Your task to perform on an android device: Show me productivity apps on the Play Store Image 0: 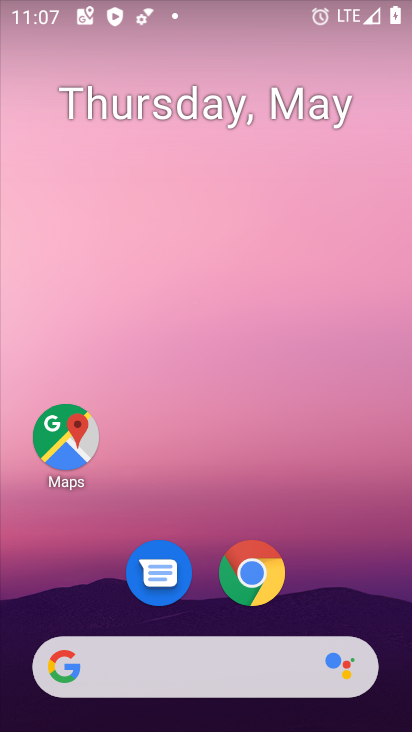
Step 0: drag from (201, 605) to (221, 195)
Your task to perform on an android device: Show me productivity apps on the Play Store Image 1: 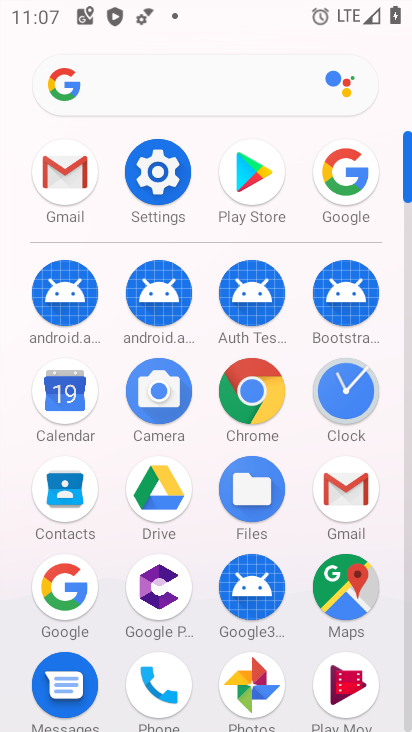
Step 1: click (244, 164)
Your task to perform on an android device: Show me productivity apps on the Play Store Image 2: 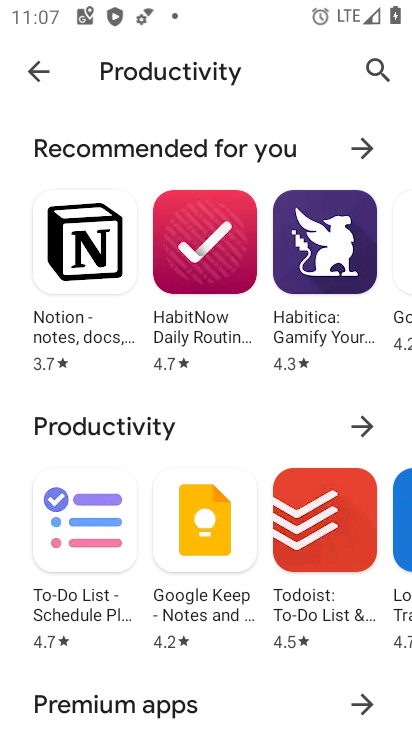
Step 2: task complete